Your task to perform on an android device: set an alarm Image 0: 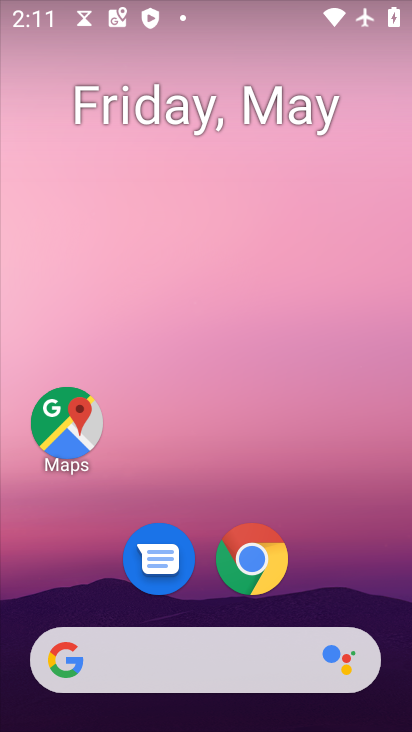
Step 0: drag from (297, 564) to (299, 92)
Your task to perform on an android device: set an alarm Image 1: 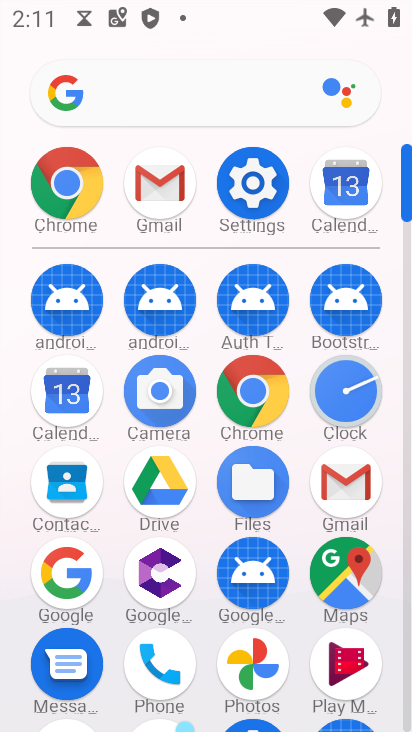
Step 1: click (349, 402)
Your task to perform on an android device: set an alarm Image 2: 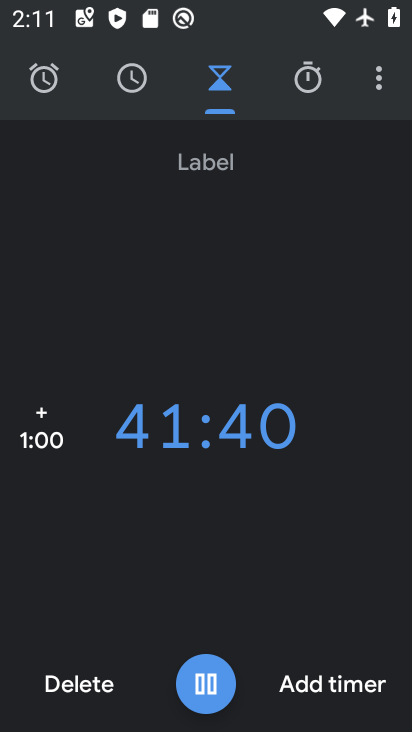
Step 2: click (29, 79)
Your task to perform on an android device: set an alarm Image 3: 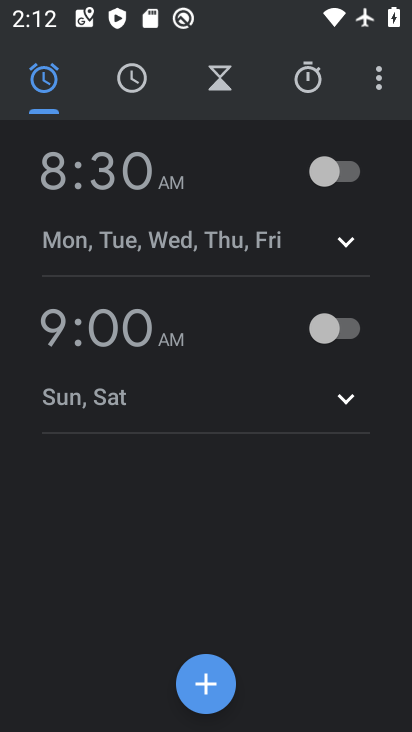
Step 3: click (213, 679)
Your task to perform on an android device: set an alarm Image 4: 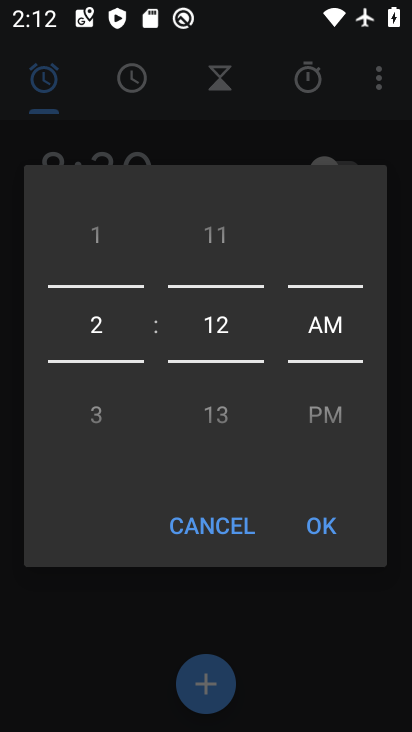
Step 4: click (330, 529)
Your task to perform on an android device: set an alarm Image 5: 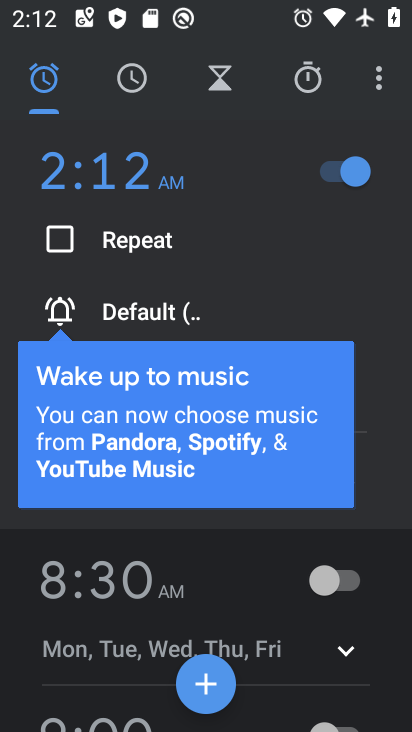
Step 5: task complete